Your task to perform on an android device: turn on notifications settings in the gmail app Image 0: 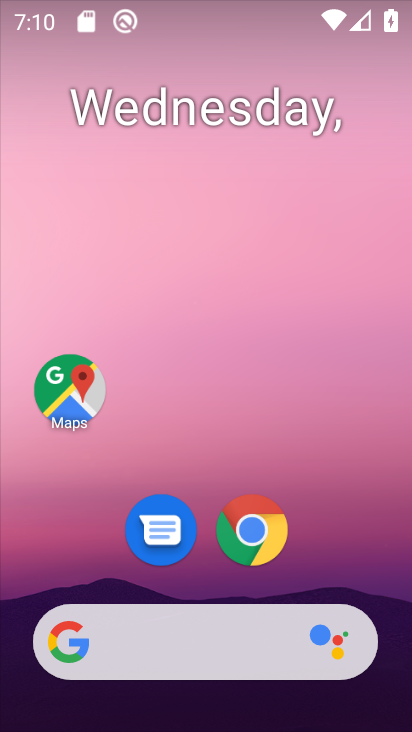
Step 0: drag from (385, 605) to (269, 1)
Your task to perform on an android device: turn on notifications settings in the gmail app Image 1: 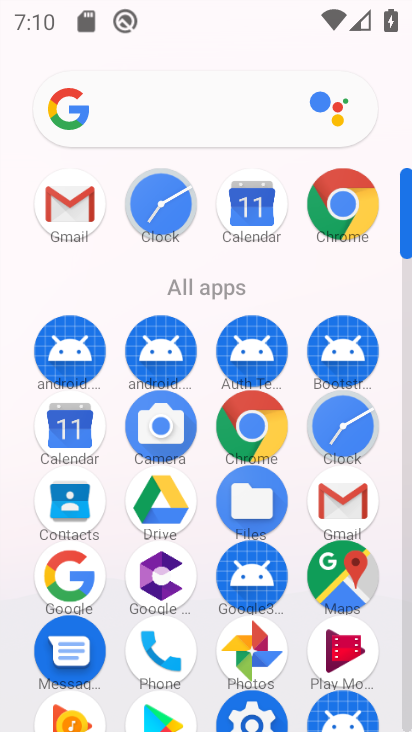
Step 1: click (355, 500)
Your task to perform on an android device: turn on notifications settings in the gmail app Image 2: 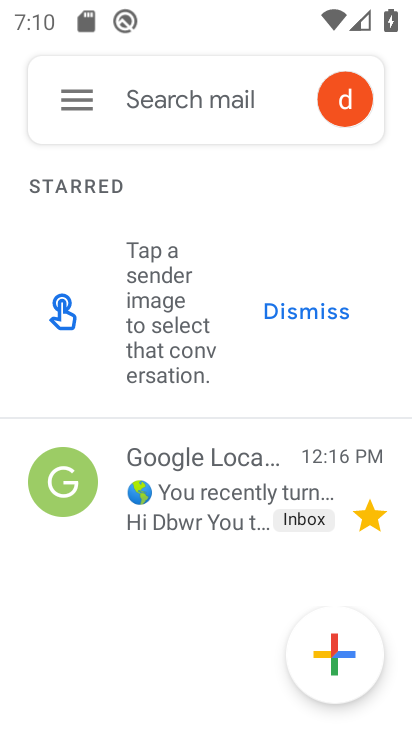
Step 2: click (71, 101)
Your task to perform on an android device: turn on notifications settings in the gmail app Image 3: 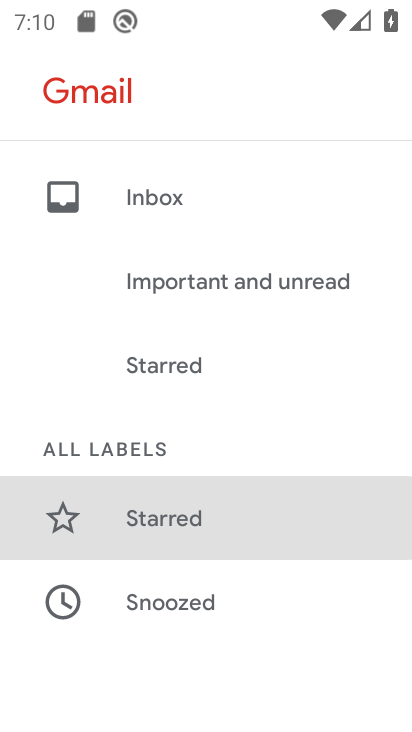
Step 3: drag from (114, 598) to (135, 160)
Your task to perform on an android device: turn on notifications settings in the gmail app Image 4: 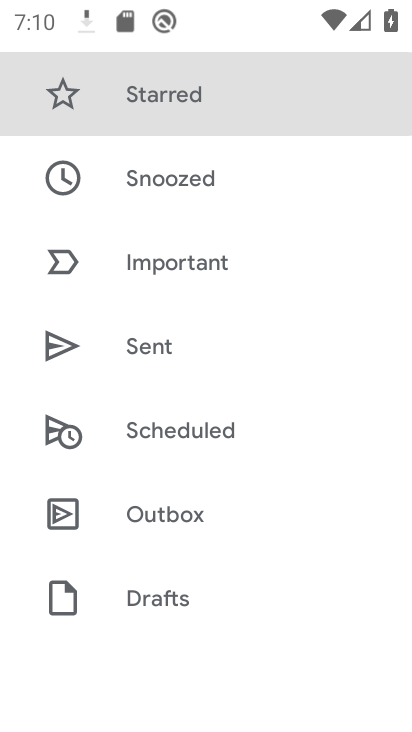
Step 4: drag from (82, 586) to (172, 147)
Your task to perform on an android device: turn on notifications settings in the gmail app Image 5: 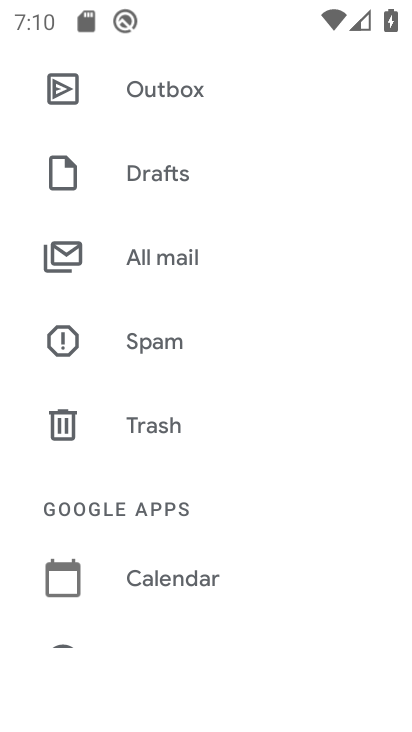
Step 5: drag from (154, 562) to (190, 101)
Your task to perform on an android device: turn on notifications settings in the gmail app Image 6: 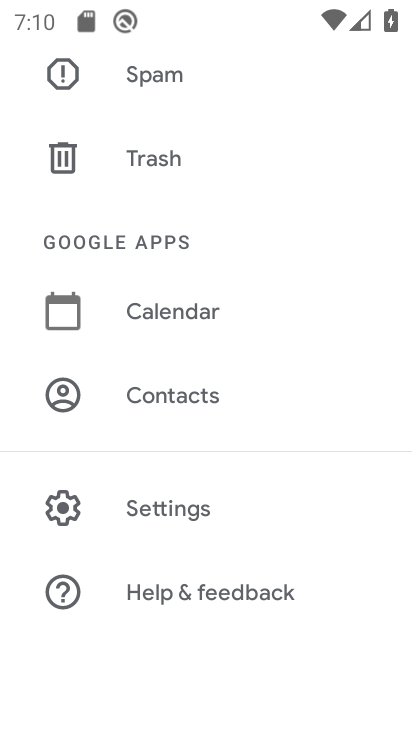
Step 6: click (185, 502)
Your task to perform on an android device: turn on notifications settings in the gmail app Image 7: 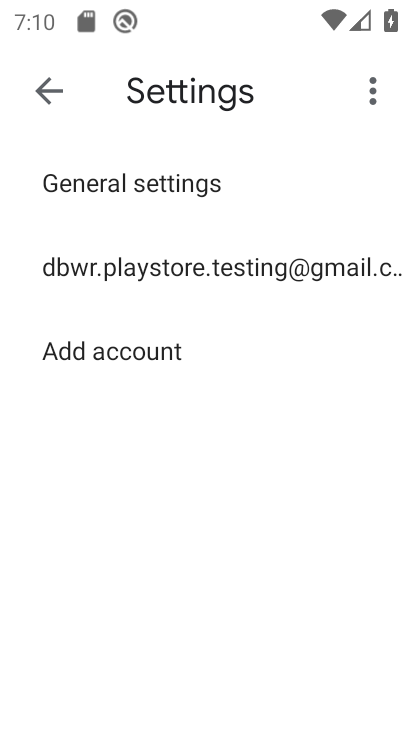
Step 7: click (172, 295)
Your task to perform on an android device: turn on notifications settings in the gmail app Image 8: 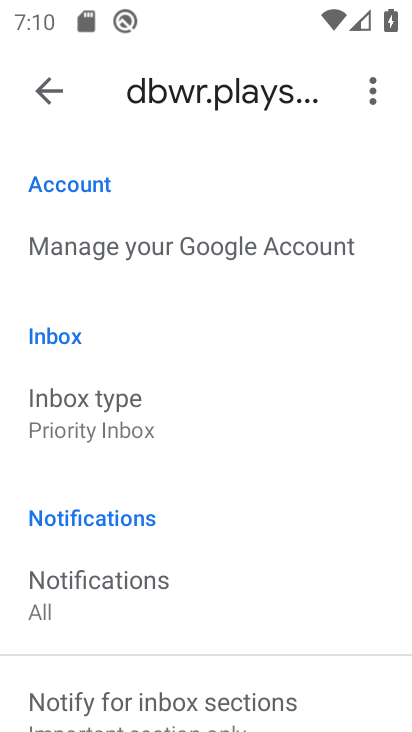
Step 8: click (151, 601)
Your task to perform on an android device: turn on notifications settings in the gmail app Image 9: 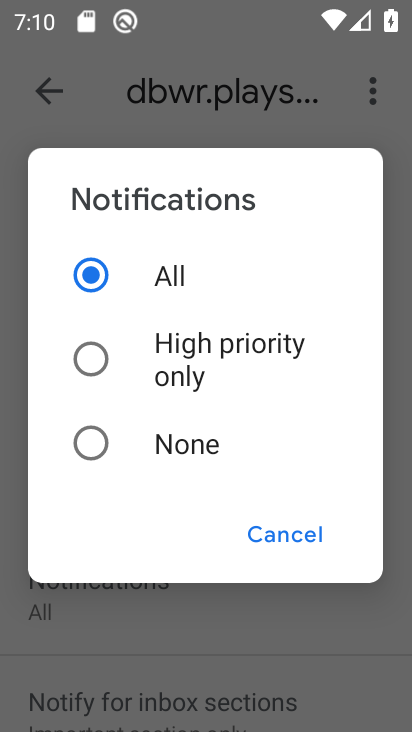
Step 9: task complete